Your task to perform on an android device: Open Google Chrome Image 0: 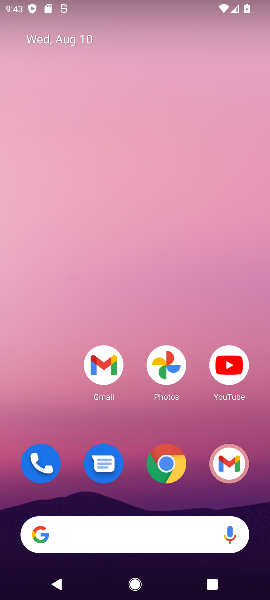
Step 0: click (163, 459)
Your task to perform on an android device: Open Google Chrome Image 1: 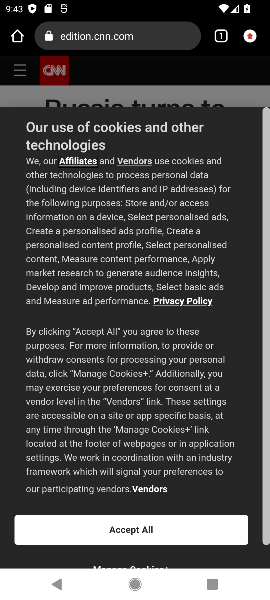
Step 1: task complete